Your task to perform on an android device: Go to network settings Image 0: 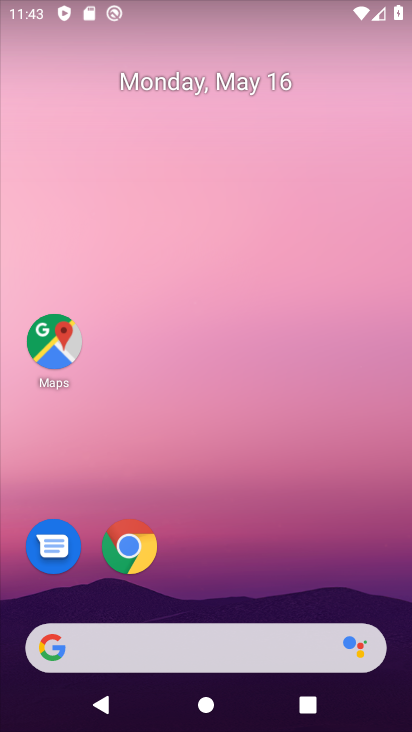
Step 0: drag from (410, 630) to (302, 26)
Your task to perform on an android device: Go to network settings Image 1: 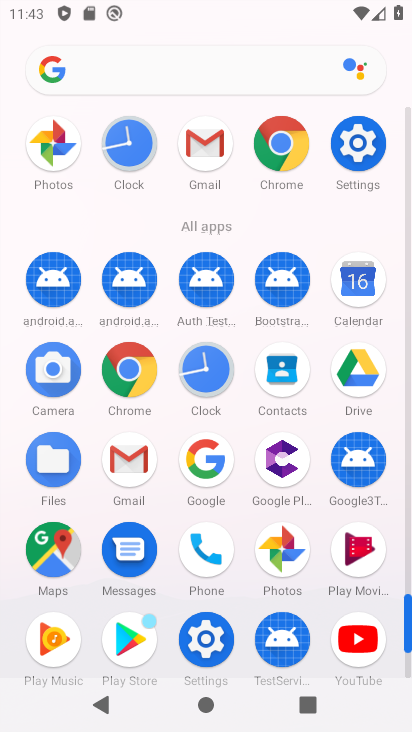
Step 1: click (410, 665)
Your task to perform on an android device: Go to network settings Image 2: 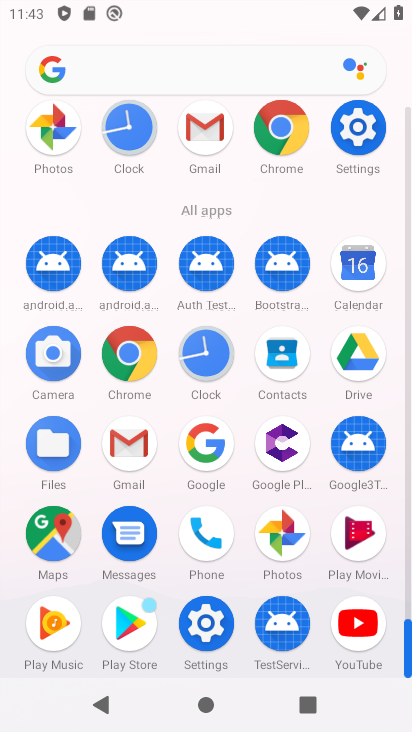
Step 2: click (209, 622)
Your task to perform on an android device: Go to network settings Image 3: 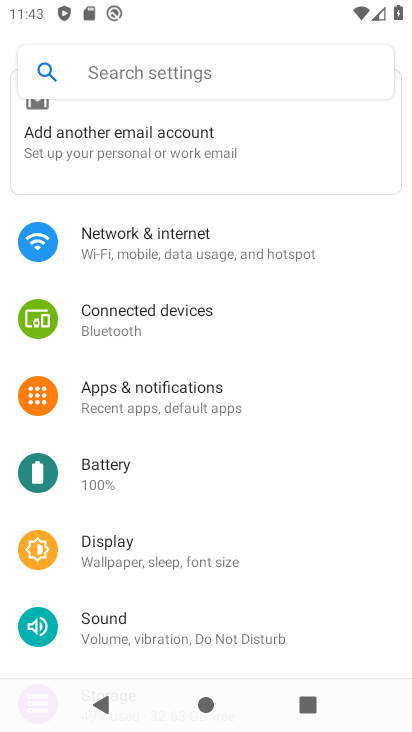
Step 3: click (109, 237)
Your task to perform on an android device: Go to network settings Image 4: 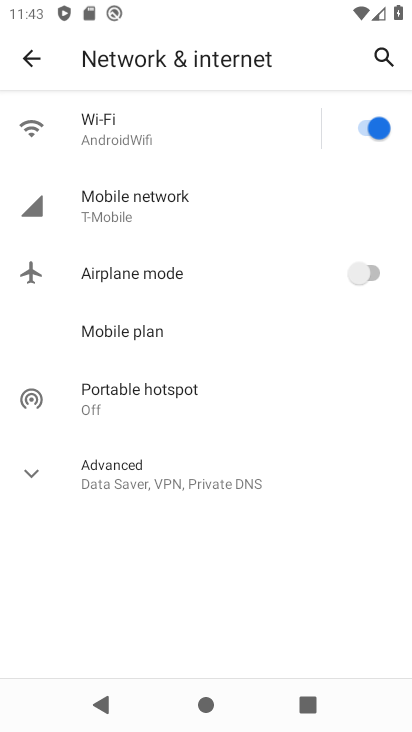
Step 4: click (130, 204)
Your task to perform on an android device: Go to network settings Image 5: 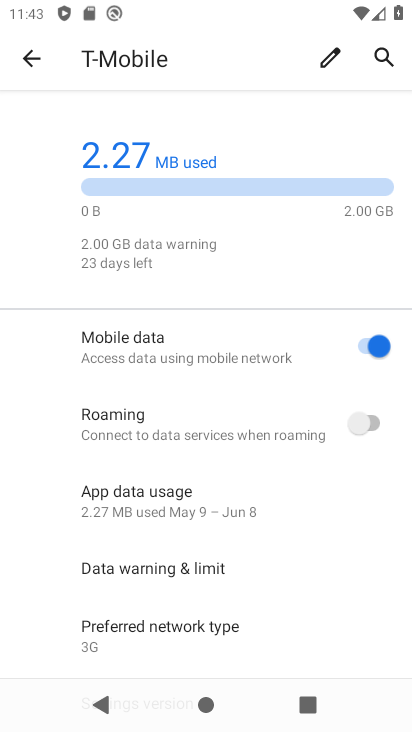
Step 5: task complete